Your task to perform on an android device: Is it going to rain today? Image 0: 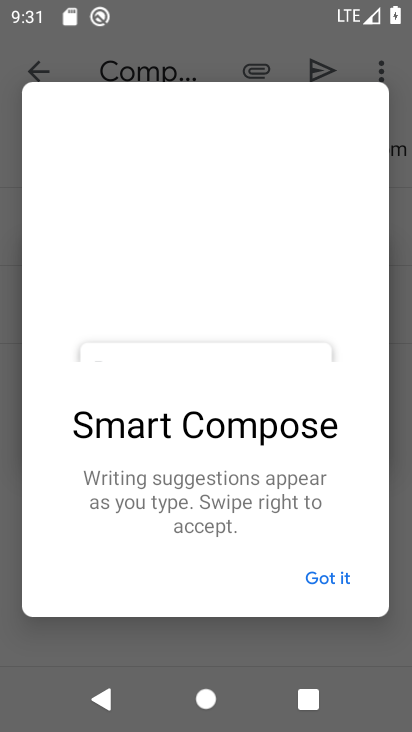
Step 0: press home button
Your task to perform on an android device: Is it going to rain today? Image 1: 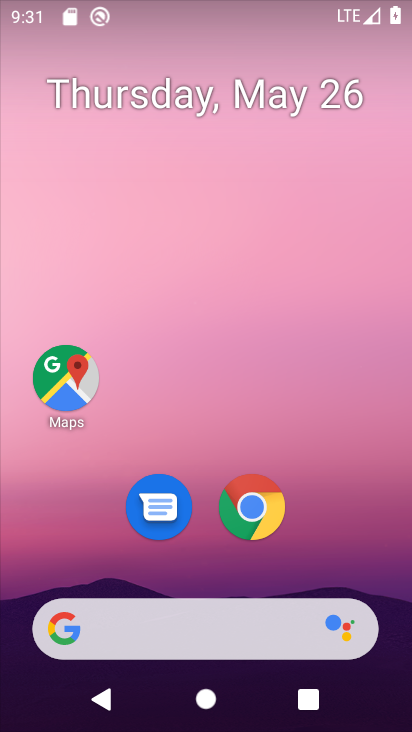
Step 1: click (217, 632)
Your task to perform on an android device: Is it going to rain today? Image 2: 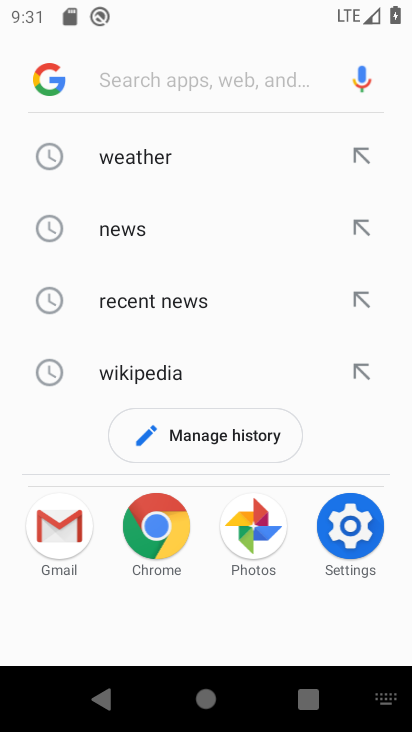
Step 2: click (148, 156)
Your task to perform on an android device: Is it going to rain today? Image 3: 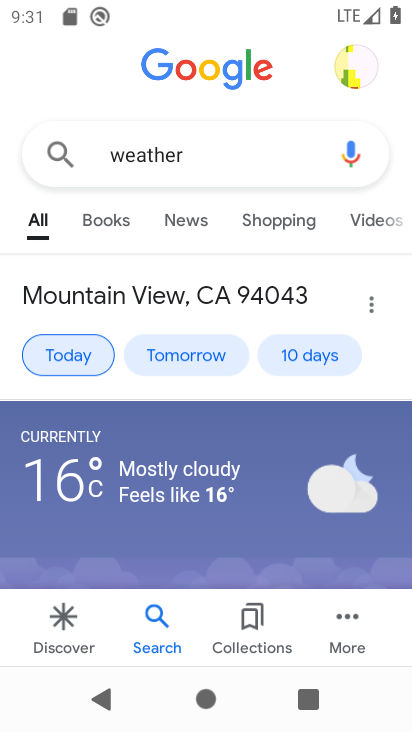
Step 3: task complete